Your task to perform on an android device: Open the phone app and click the voicemail tab. Image 0: 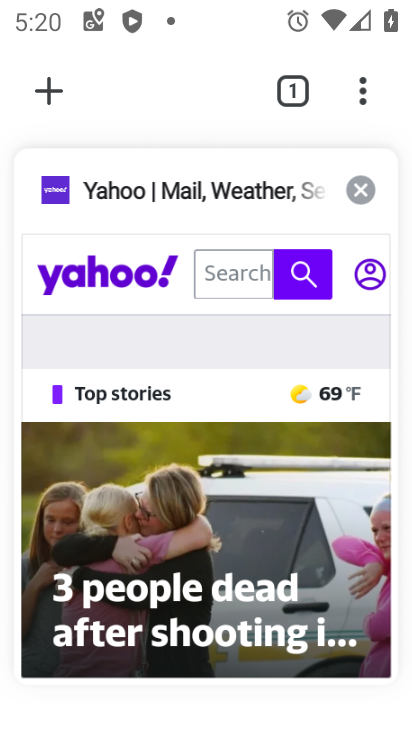
Step 0: press home button
Your task to perform on an android device: Open the phone app and click the voicemail tab. Image 1: 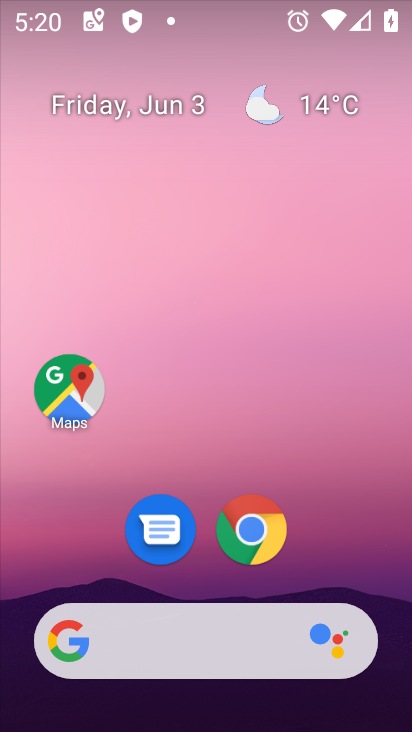
Step 1: drag from (205, 580) to (259, 105)
Your task to perform on an android device: Open the phone app and click the voicemail tab. Image 2: 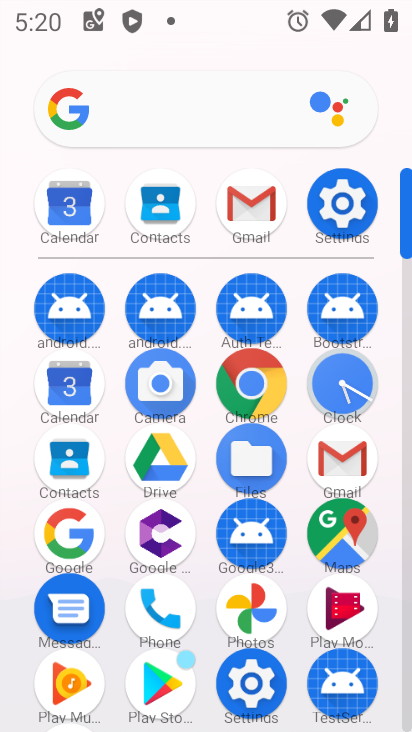
Step 2: click (155, 598)
Your task to perform on an android device: Open the phone app and click the voicemail tab. Image 3: 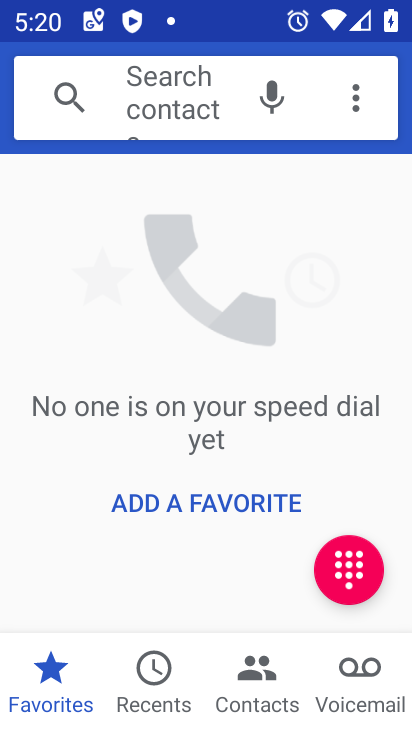
Step 3: click (355, 665)
Your task to perform on an android device: Open the phone app and click the voicemail tab. Image 4: 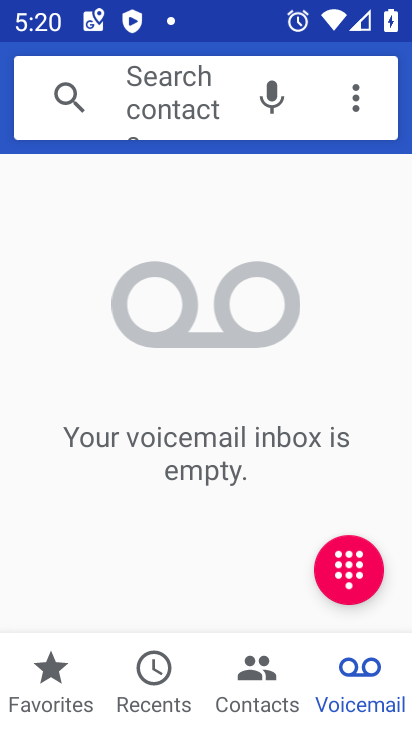
Step 4: task complete